Your task to perform on an android device: Open Google Chrome Image 0: 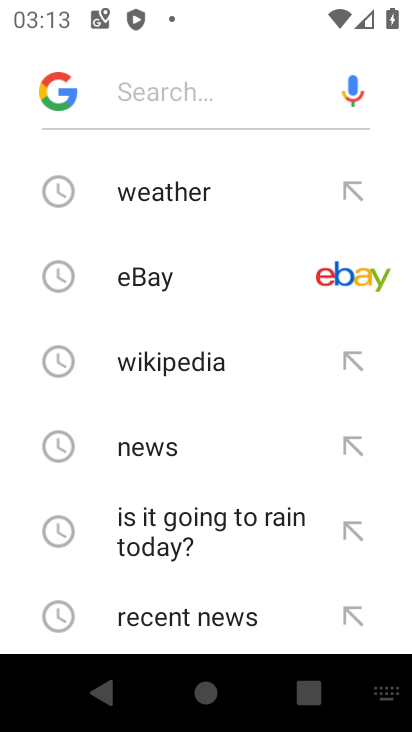
Step 0: press back button
Your task to perform on an android device: Open Google Chrome Image 1: 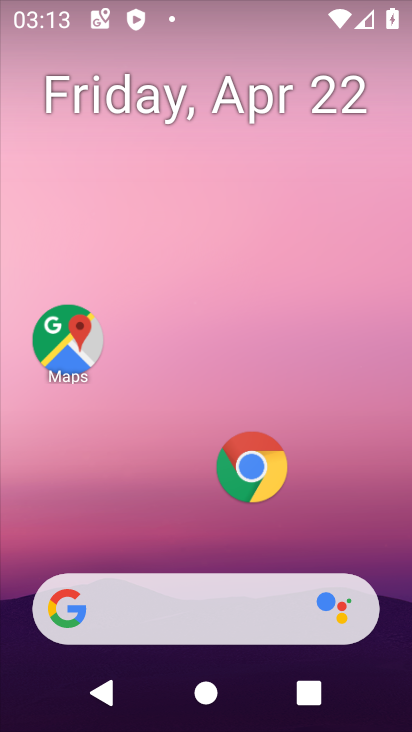
Step 1: drag from (213, 426) to (248, 184)
Your task to perform on an android device: Open Google Chrome Image 2: 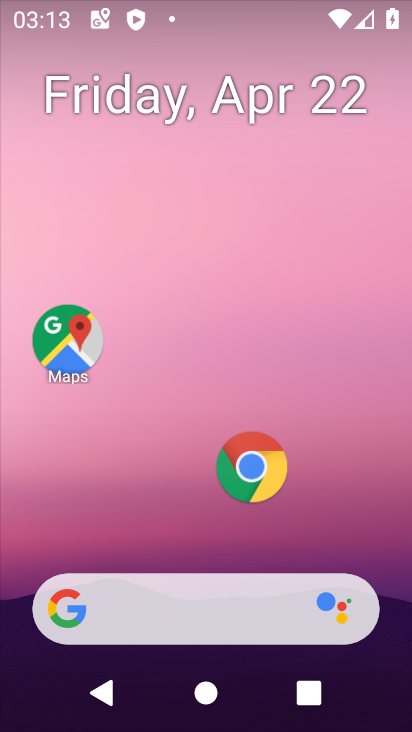
Step 2: click (244, 470)
Your task to perform on an android device: Open Google Chrome Image 3: 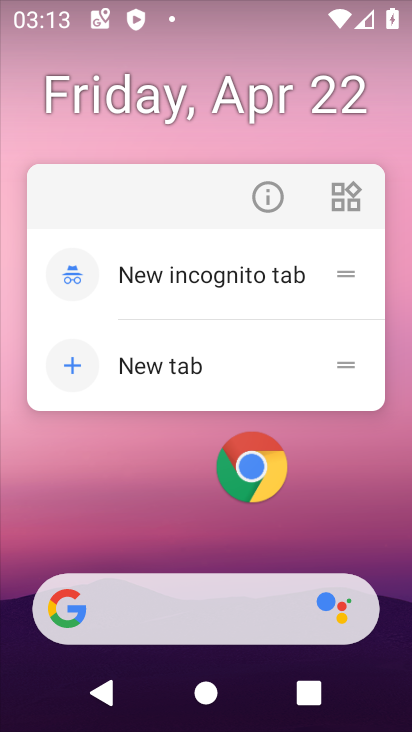
Step 3: click (274, 191)
Your task to perform on an android device: Open Google Chrome Image 4: 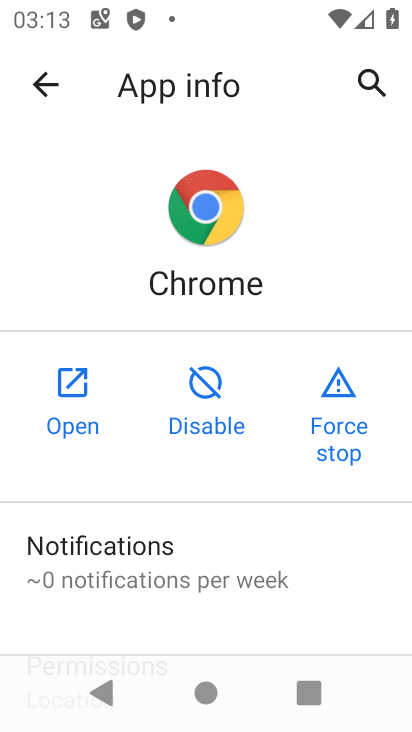
Step 4: click (85, 411)
Your task to perform on an android device: Open Google Chrome Image 5: 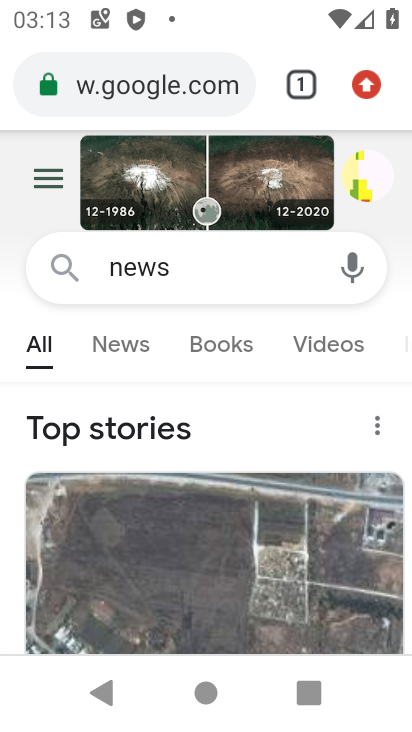
Step 5: task complete